Your task to perform on an android device: change keyboard looks Image 0: 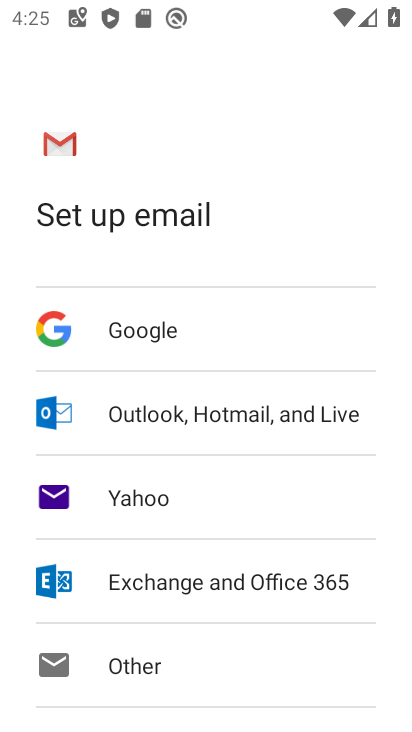
Step 0: press back button
Your task to perform on an android device: change keyboard looks Image 1: 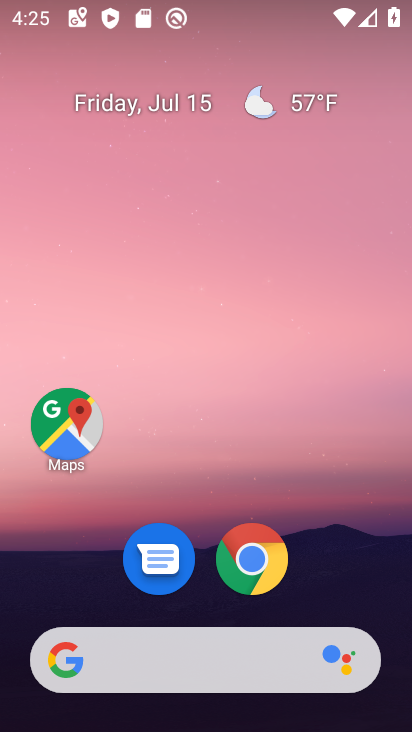
Step 1: drag from (108, 586) to (212, 9)
Your task to perform on an android device: change keyboard looks Image 2: 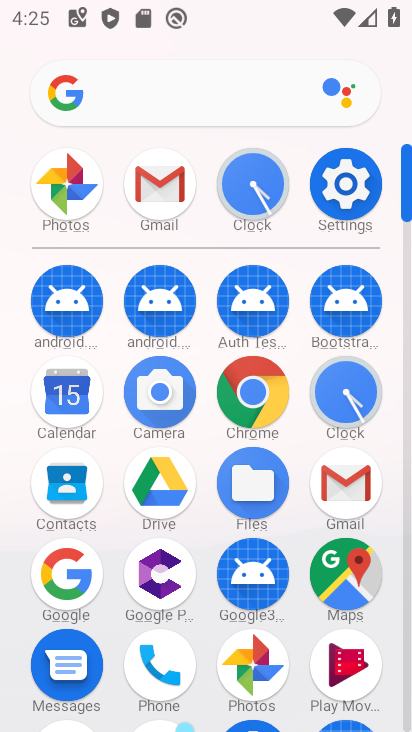
Step 2: click (339, 192)
Your task to perform on an android device: change keyboard looks Image 3: 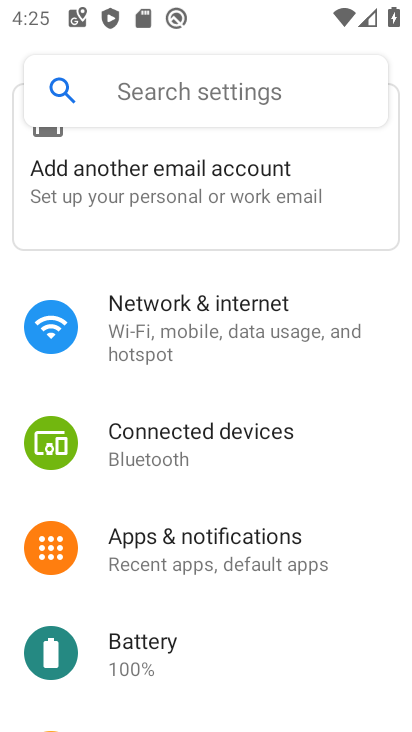
Step 3: drag from (166, 652) to (253, 119)
Your task to perform on an android device: change keyboard looks Image 4: 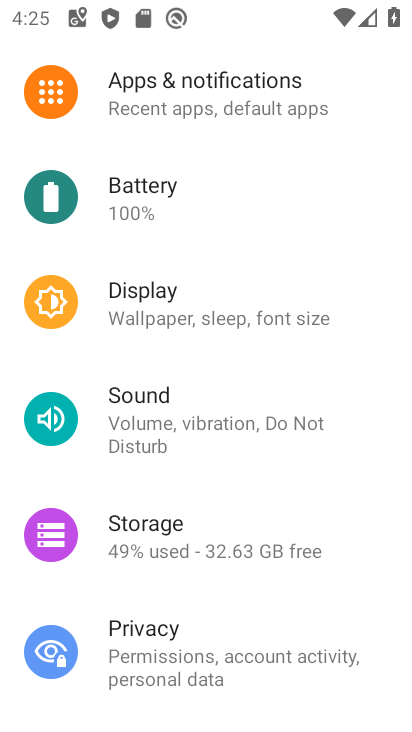
Step 4: drag from (236, 654) to (268, 74)
Your task to perform on an android device: change keyboard looks Image 5: 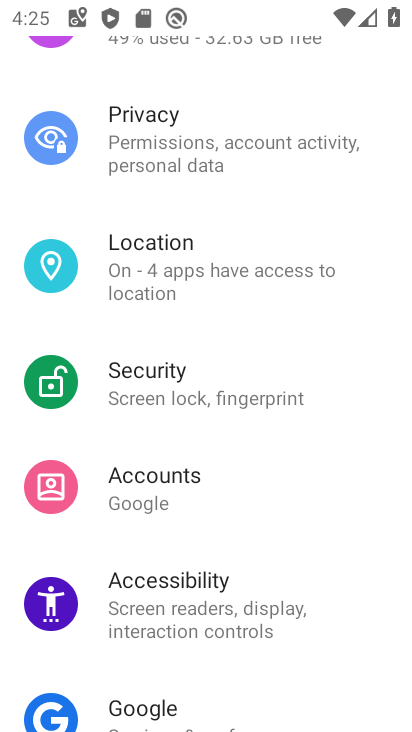
Step 5: drag from (160, 646) to (227, 52)
Your task to perform on an android device: change keyboard looks Image 6: 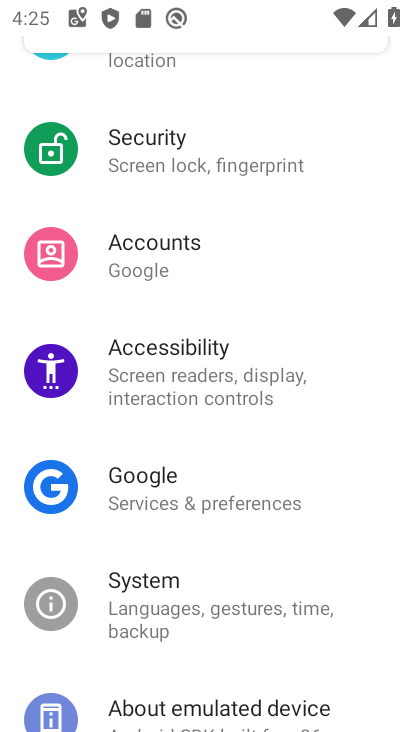
Step 6: click (156, 607)
Your task to perform on an android device: change keyboard looks Image 7: 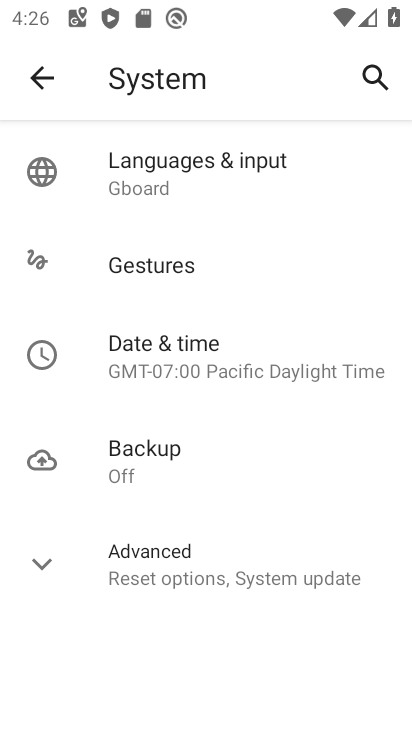
Step 7: click (227, 163)
Your task to perform on an android device: change keyboard looks Image 8: 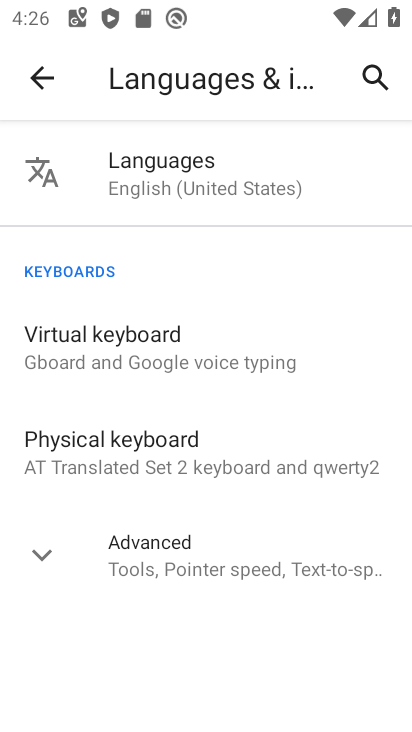
Step 8: click (178, 191)
Your task to perform on an android device: change keyboard looks Image 9: 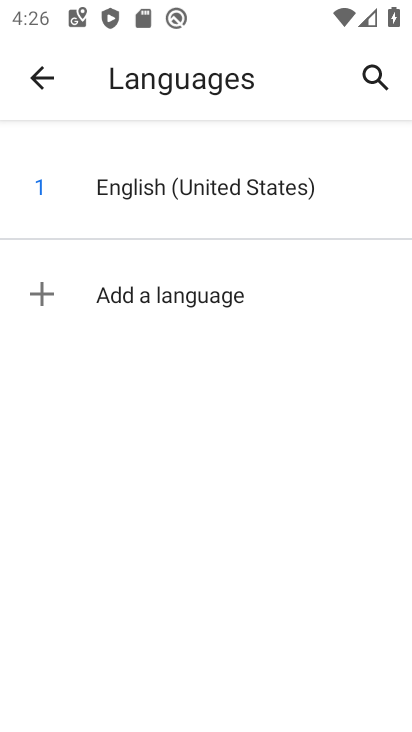
Step 9: click (49, 74)
Your task to perform on an android device: change keyboard looks Image 10: 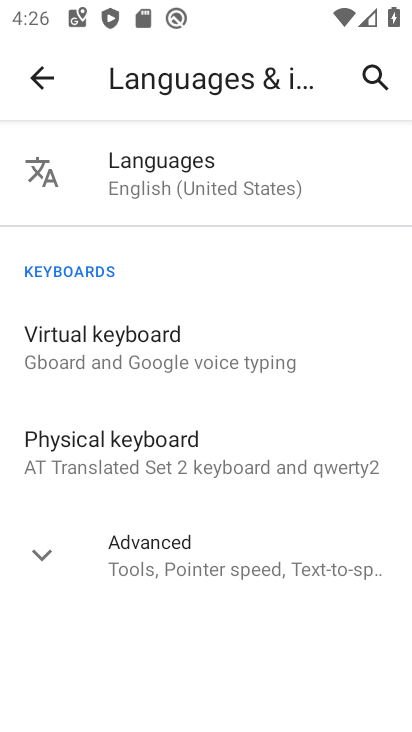
Step 10: click (159, 354)
Your task to perform on an android device: change keyboard looks Image 11: 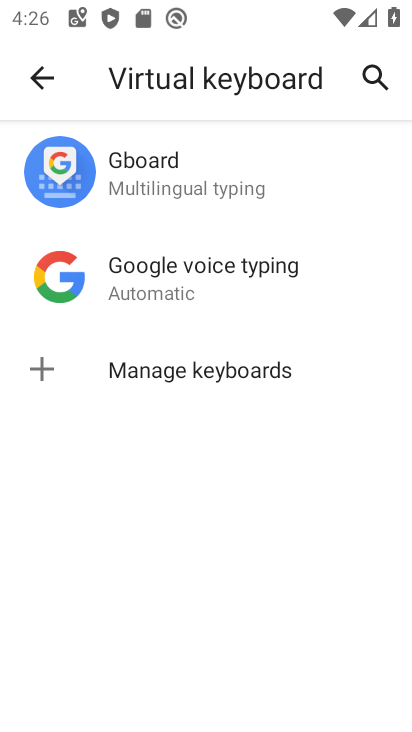
Step 11: click (156, 177)
Your task to perform on an android device: change keyboard looks Image 12: 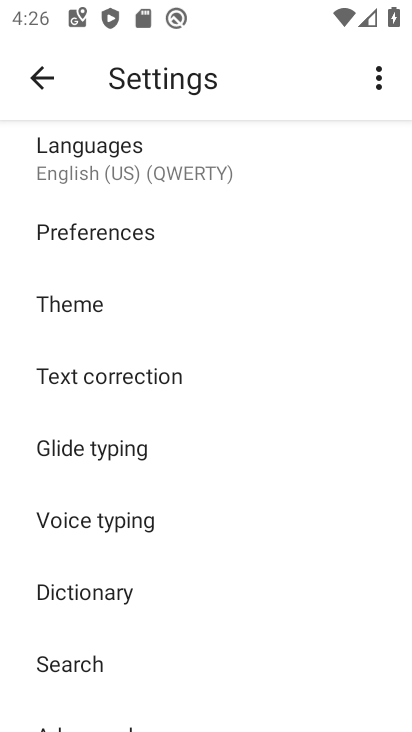
Step 12: click (87, 296)
Your task to perform on an android device: change keyboard looks Image 13: 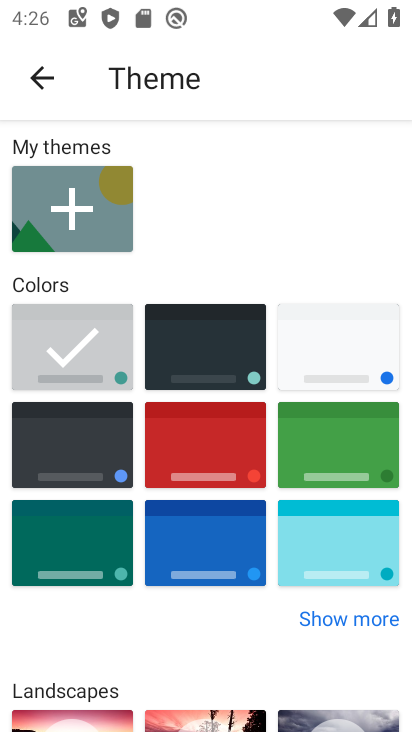
Step 13: click (329, 442)
Your task to perform on an android device: change keyboard looks Image 14: 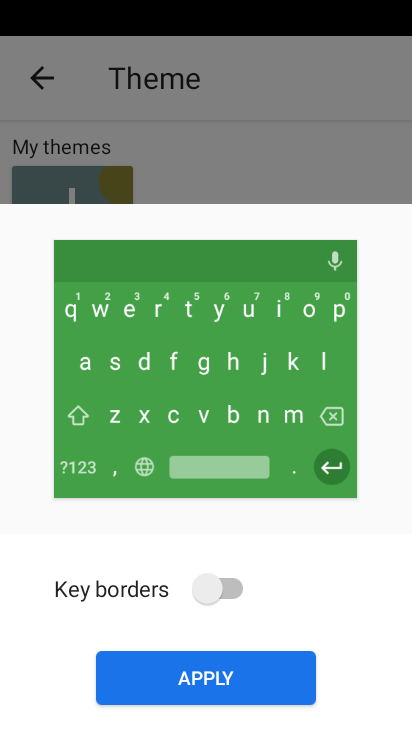
Step 14: click (138, 693)
Your task to perform on an android device: change keyboard looks Image 15: 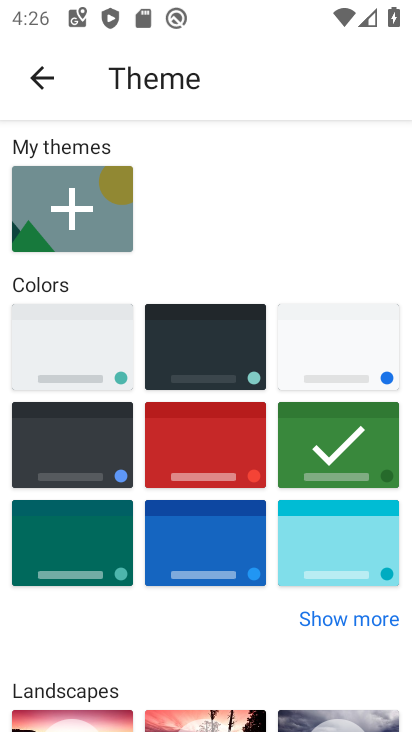
Step 15: task complete